Your task to perform on an android device: Open ESPN.com Image 0: 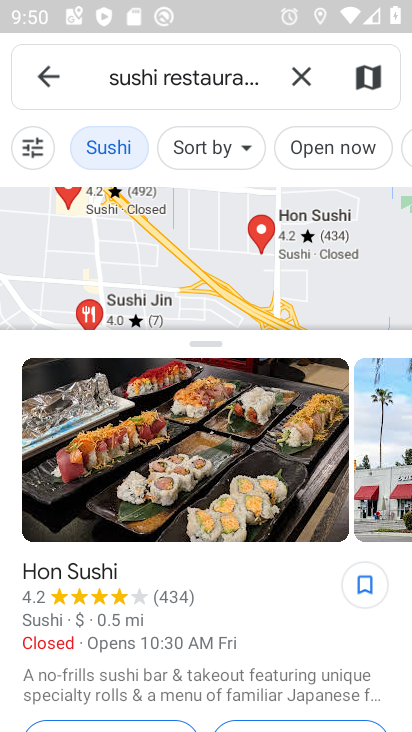
Step 0: press home button
Your task to perform on an android device: Open ESPN.com Image 1: 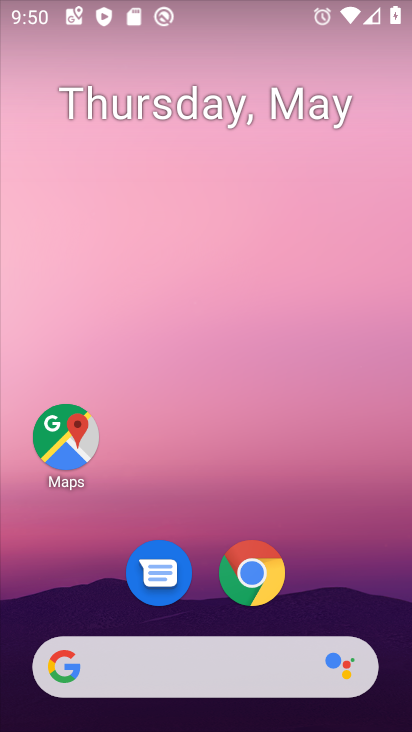
Step 1: click (256, 574)
Your task to perform on an android device: Open ESPN.com Image 2: 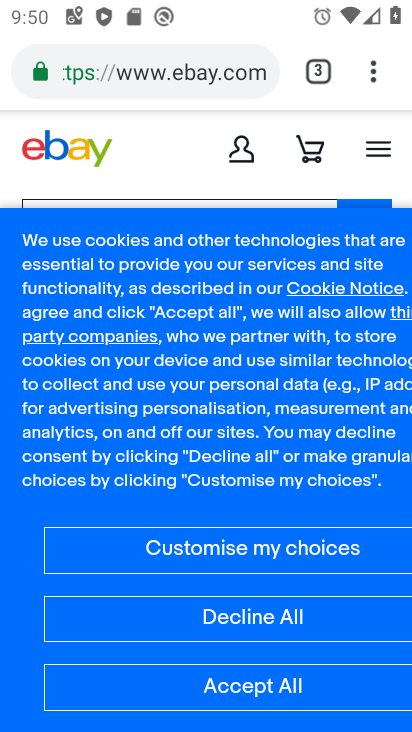
Step 2: click (307, 63)
Your task to perform on an android device: Open ESPN.com Image 3: 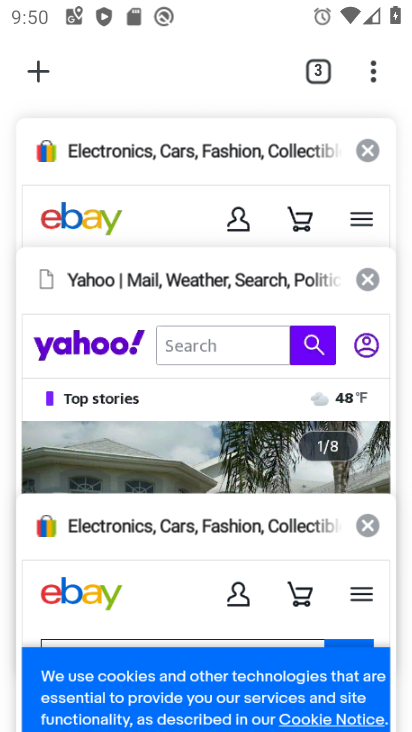
Step 3: click (43, 75)
Your task to perform on an android device: Open ESPN.com Image 4: 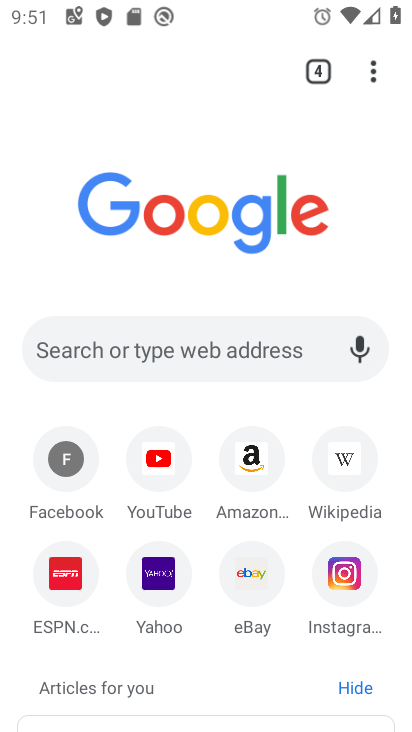
Step 4: click (67, 566)
Your task to perform on an android device: Open ESPN.com Image 5: 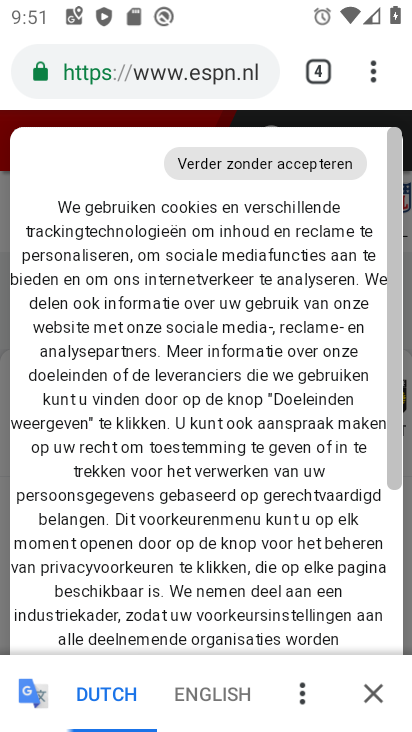
Step 5: task complete